Your task to perform on an android device: add a label to a message in the gmail app Image 0: 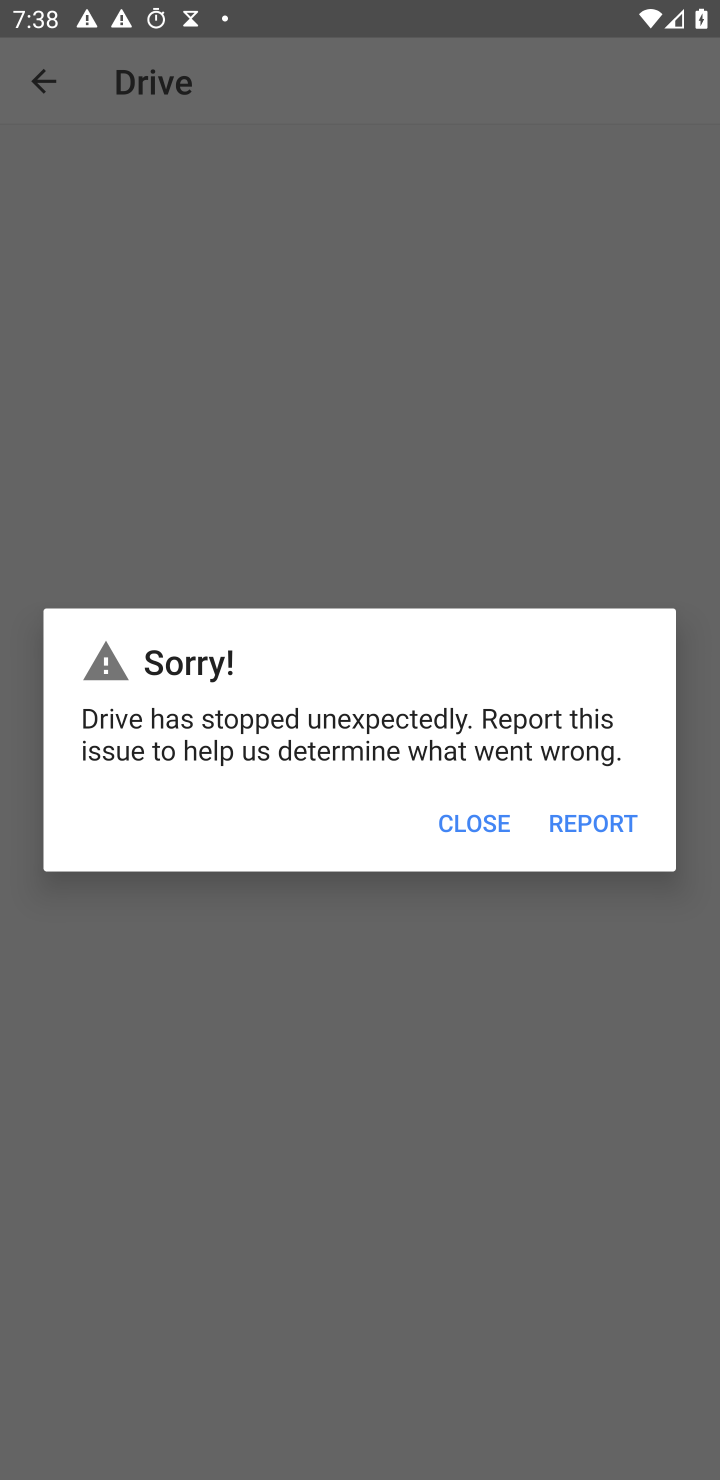
Step 0: press home button
Your task to perform on an android device: add a label to a message in the gmail app Image 1: 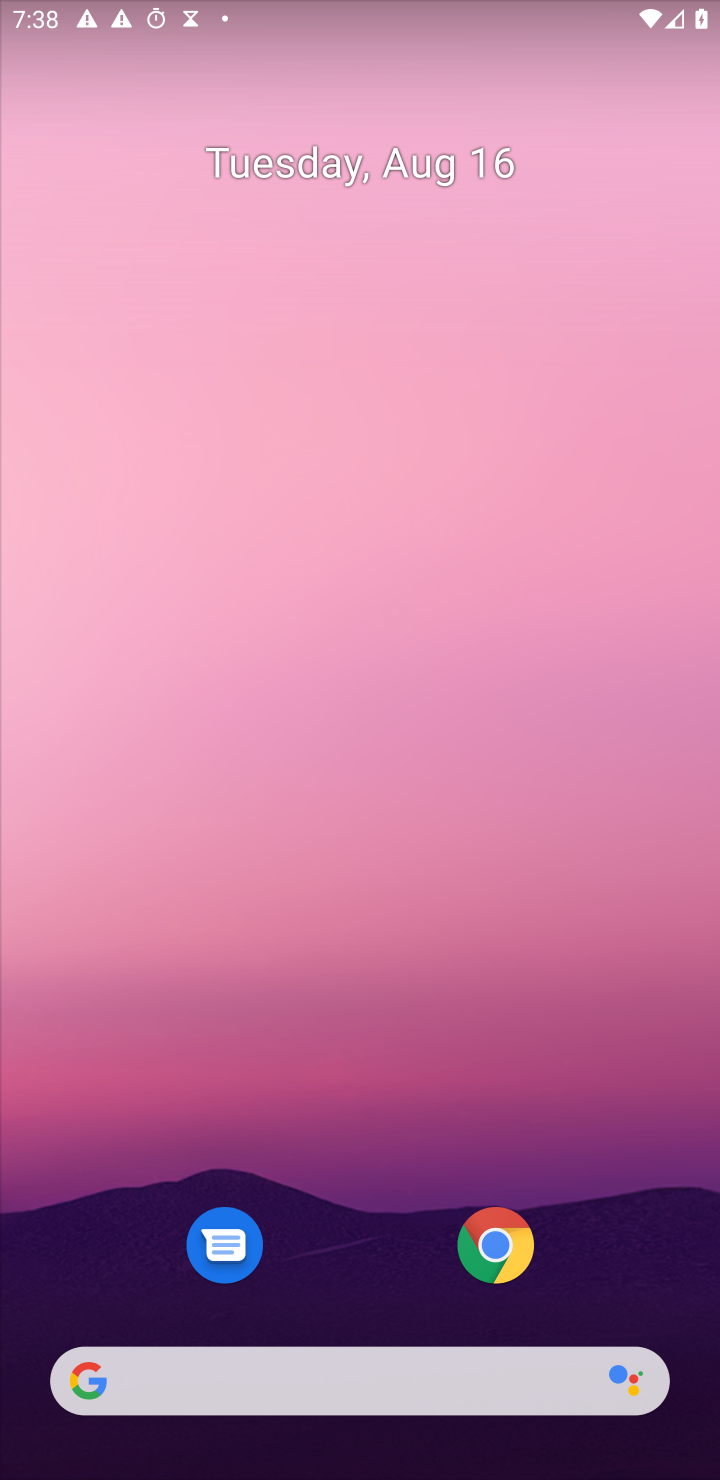
Step 1: drag from (385, 1186) to (310, 199)
Your task to perform on an android device: add a label to a message in the gmail app Image 2: 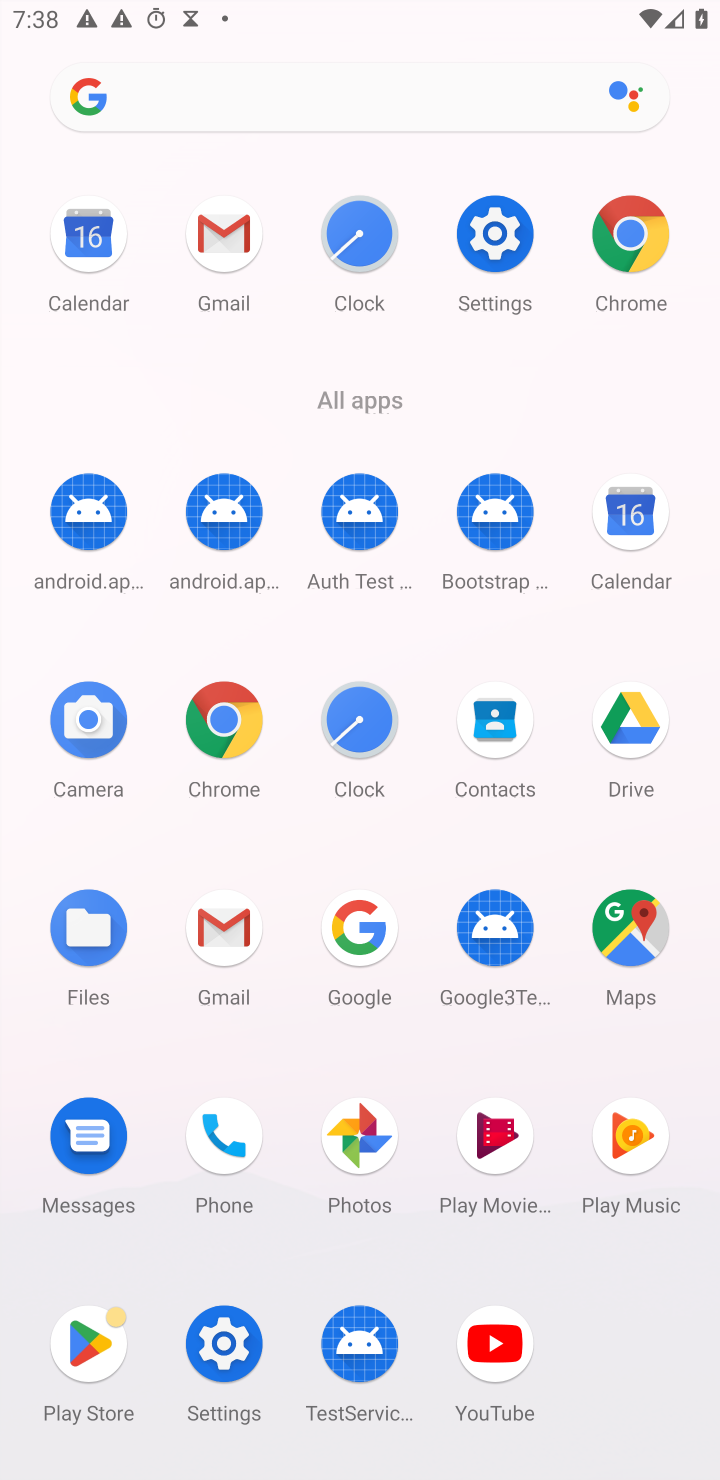
Step 2: click (224, 237)
Your task to perform on an android device: add a label to a message in the gmail app Image 3: 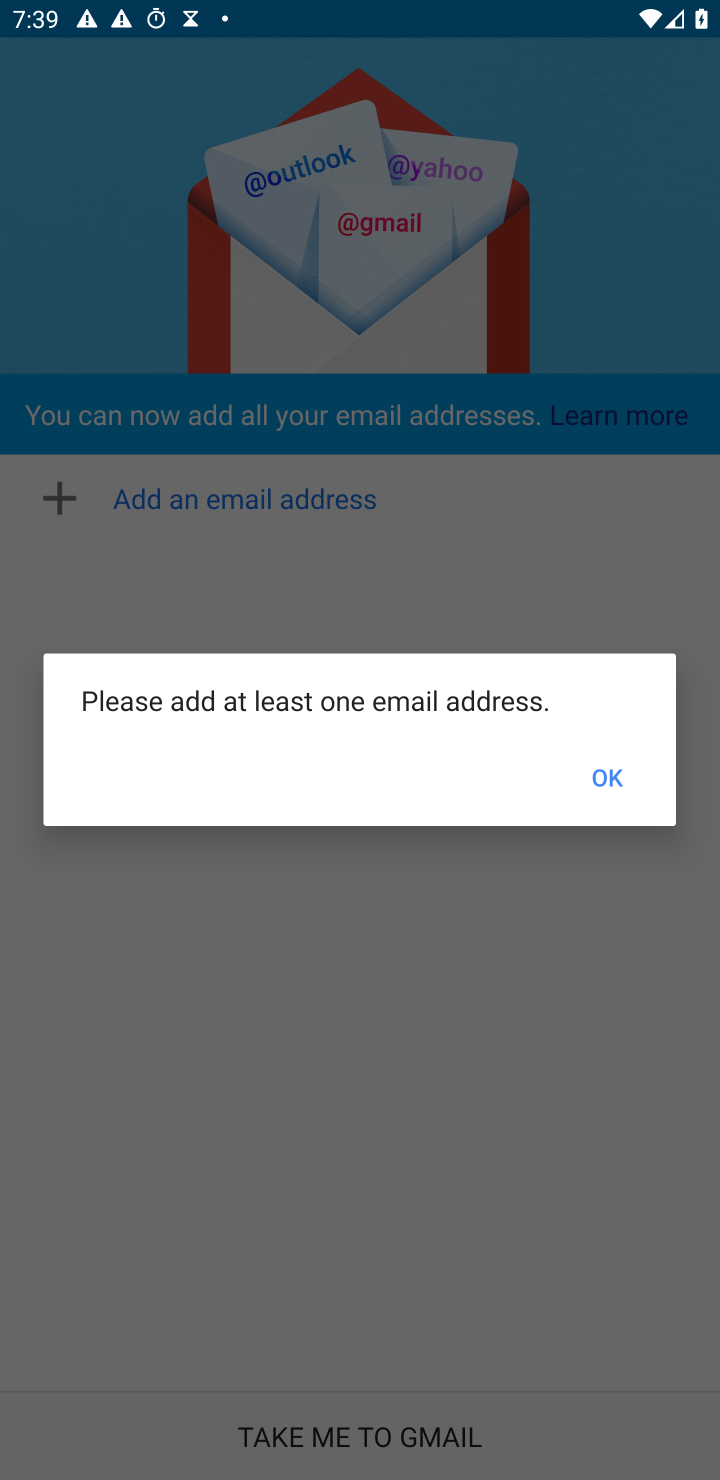
Step 3: task complete